Your task to perform on an android device: clear history in the chrome app Image 0: 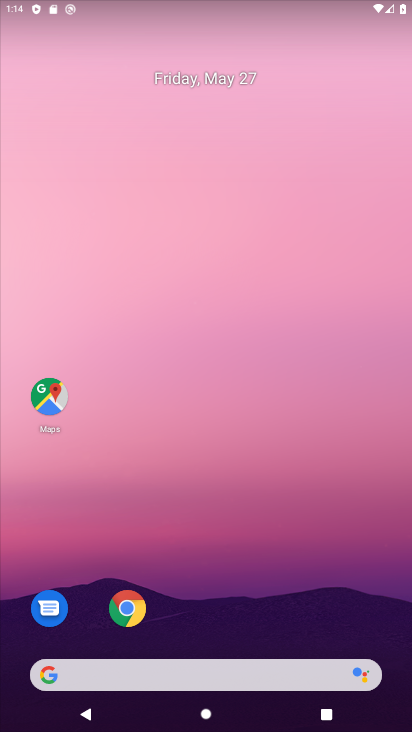
Step 0: click (125, 613)
Your task to perform on an android device: clear history in the chrome app Image 1: 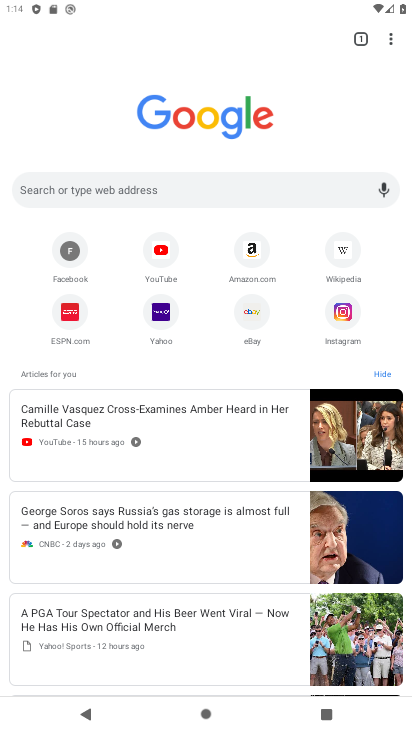
Step 1: click (389, 44)
Your task to perform on an android device: clear history in the chrome app Image 2: 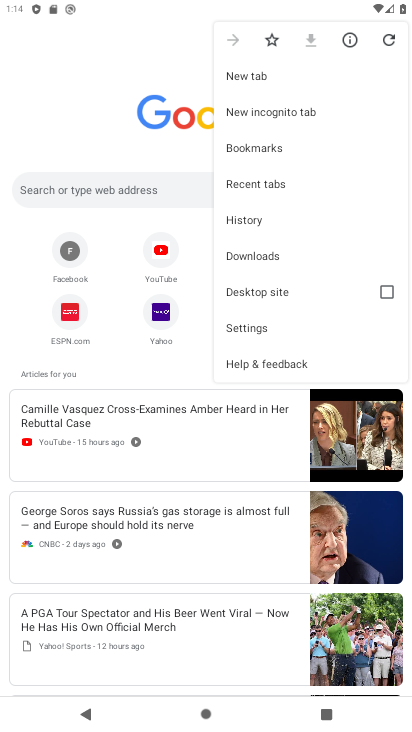
Step 2: click (250, 329)
Your task to perform on an android device: clear history in the chrome app Image 3: 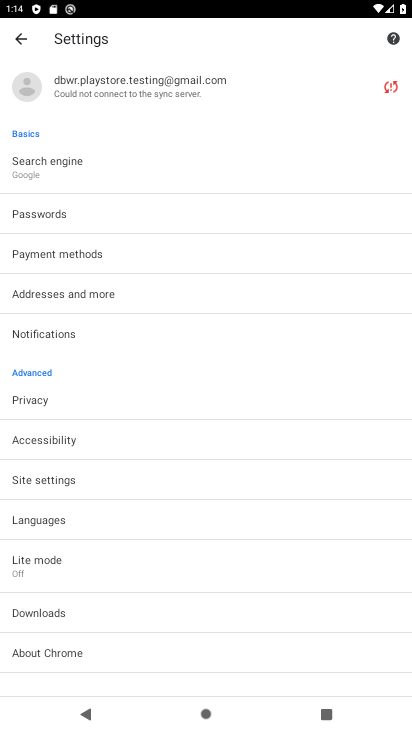
Step 3: press back button
Your task to perform on an android device: clear history in the chrome app Image 4: 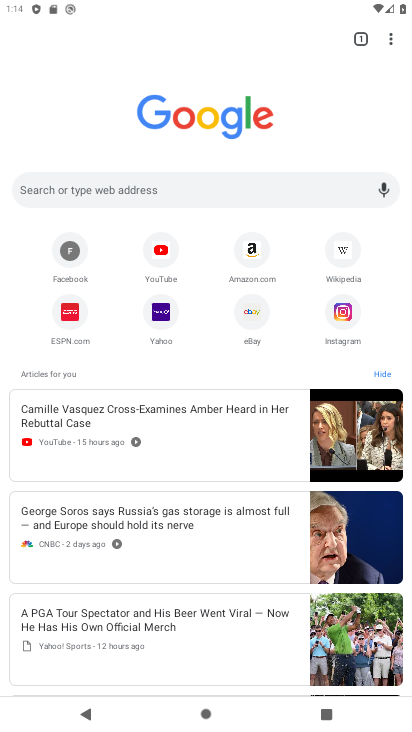
Step 4: click (391, 43)
Your task to perform on an android device: clear history in the chrome app Image 5: 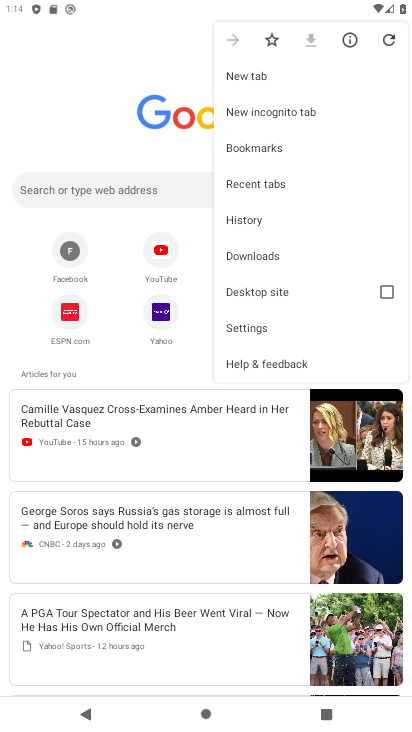
Step 5: click (239, 215)
Your task to perform on an android device: clear history in the chrome app Image 6: 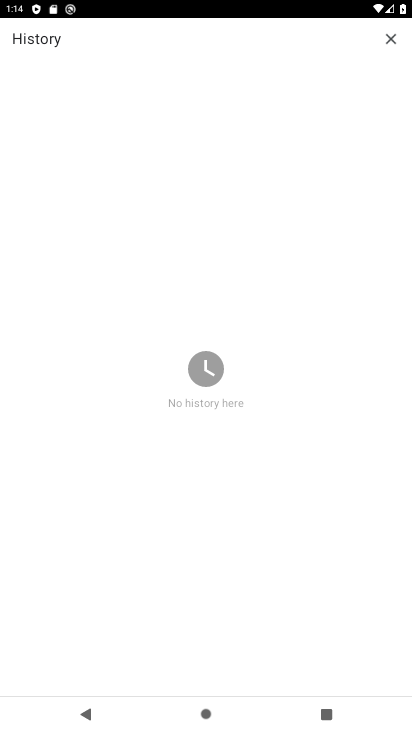
Step 6: task complete